Your task to perform on an android device: make emails show in primary in the gmail app Image 0: 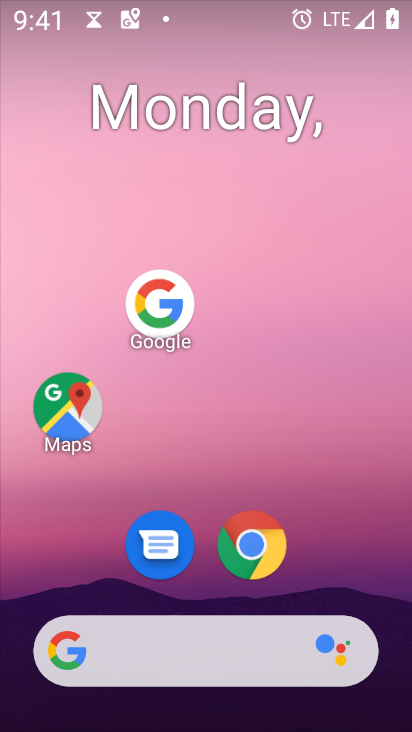
Step 0: press home button
Your task to perform on an android device: make emails show in primary in the gmail app Image 1: 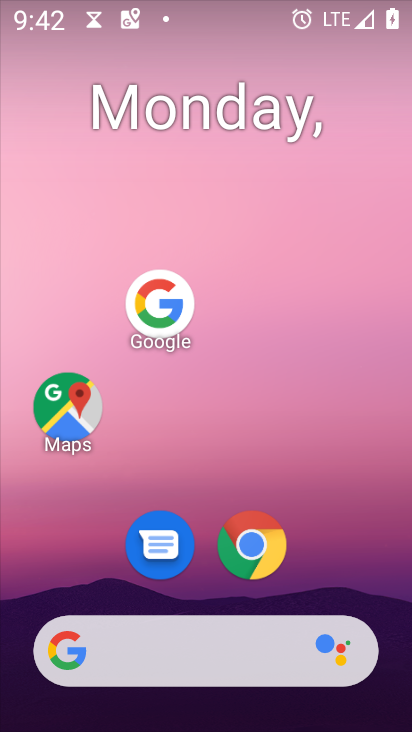
Step 1: drag from (205, 651) to (286, 178)
Your task to perform on an android device: make emails show in primary in the gmail app Image 2: 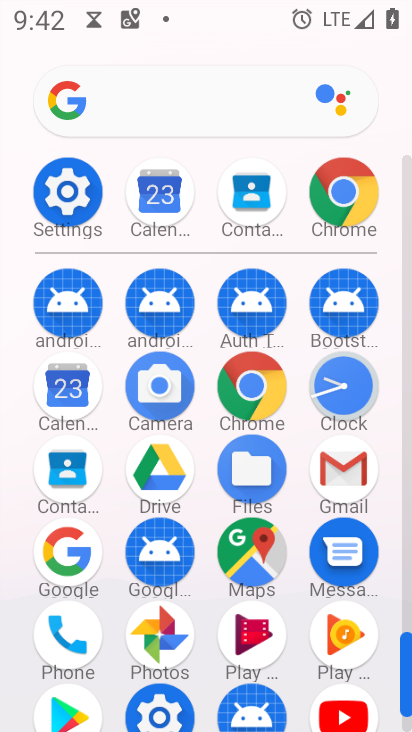
Step 2: click (333, 467)
Your task to perform on an android device: make emails show in primary in the gmail app Image 3: 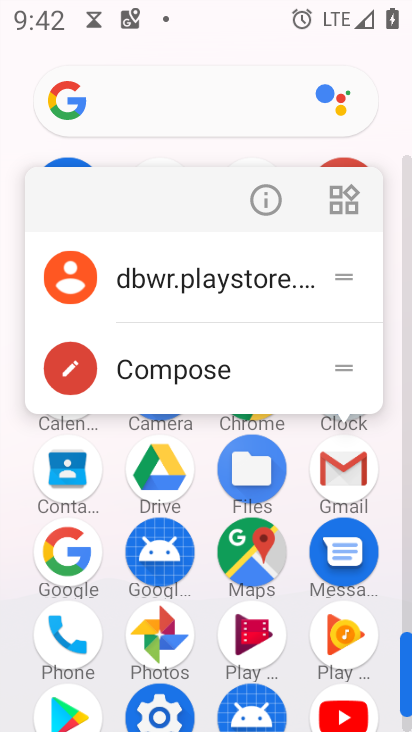
Step 3: click (338, 479)
Your task to perform on an android device: make emails show in primary in the gmail app Image 4: 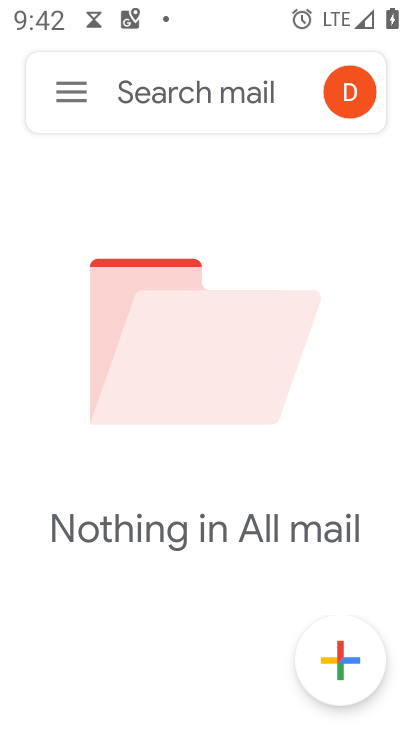
Step 4: click (71, 99)
Your task to perform on an android device: make emails show in primary in the gmail app Image 5: 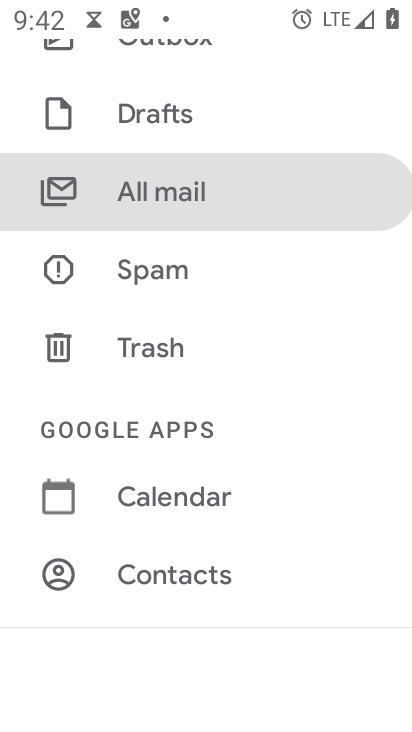
Step 5: drag from (239, 607) to (329, 183)
Your task to perform on an android device: make emails show in primary in the gmail app Image 6: 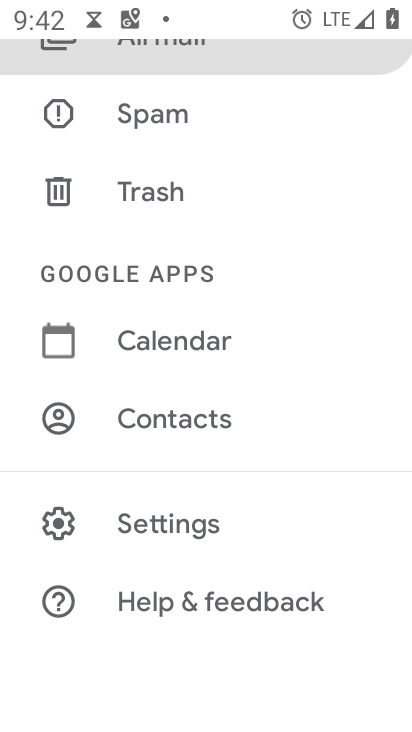
Step 6: click (167, 524)
Your task to perform on an android device: make emails show in primary in the gmail app Image 7: 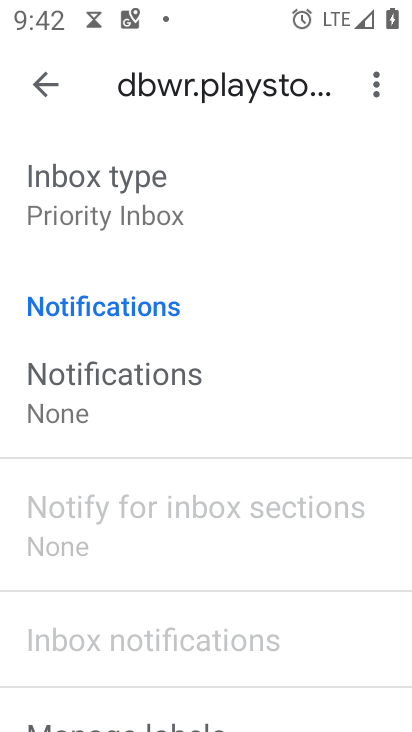
Step 7: task complete